Your task to perform on an android device: turn pop-ups on in chrome Image 0: 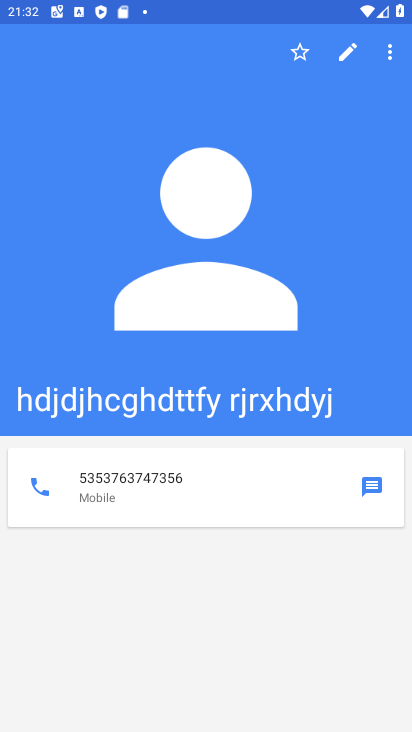
Step 0: press home button
Your task to perform on an android device: turn pop-ups on in chrome Image 1: 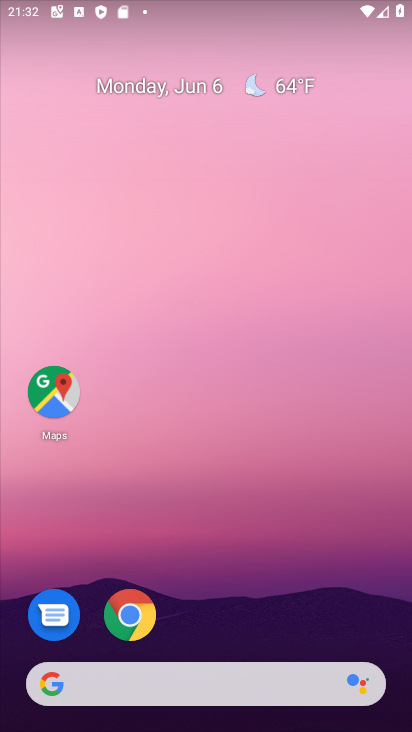
Step 1: click (113, 621)
Your task to perform on an android device: turn pop-ups on in chrome Image 2: 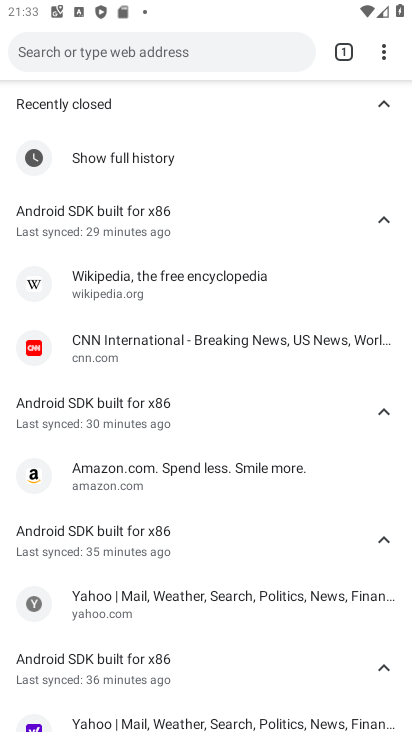
Step 2: click (385, 50)
Your task to perform on an android device: turn pop-ups on in chrome Image 3: 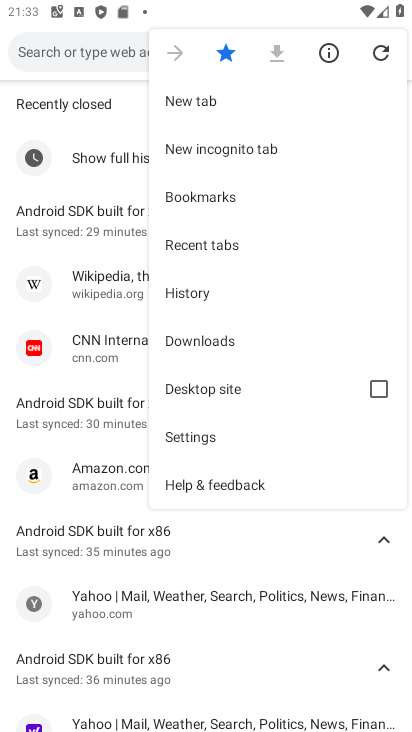
Step 3: click (197, 437)
Your task to perform on an android device: turn pop-ups on in chrome Image 4: 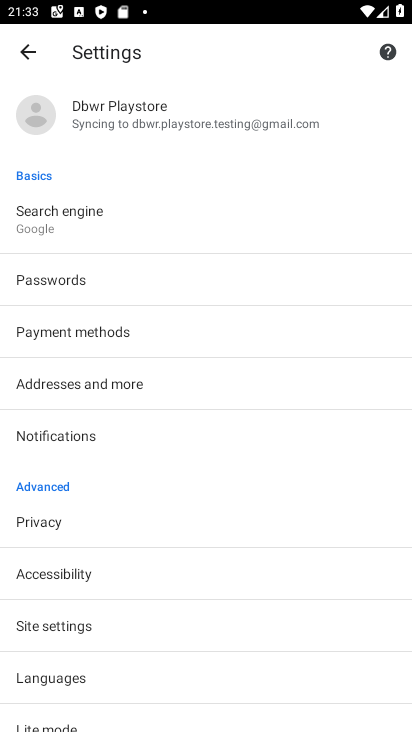
Step 4: drag from (138, 675) to (144, 289)
Your task to perform on an android device: turn pop-ups on in chrome Image 5: 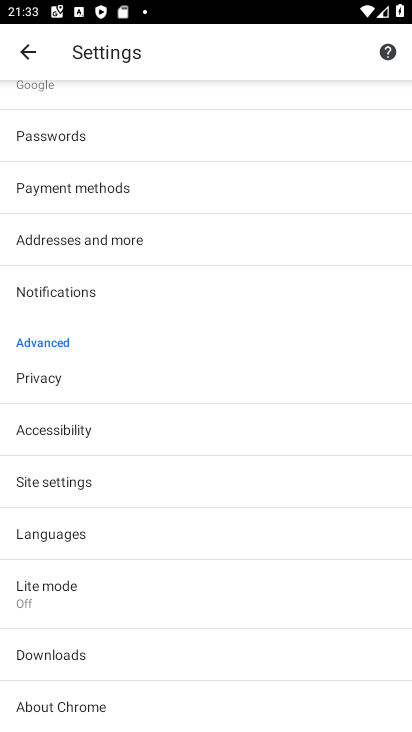
Step 5: drag from (141, 684) to (152, 400)
Your task to perform on an android device: turn pop-ups on in chrome Image 6: 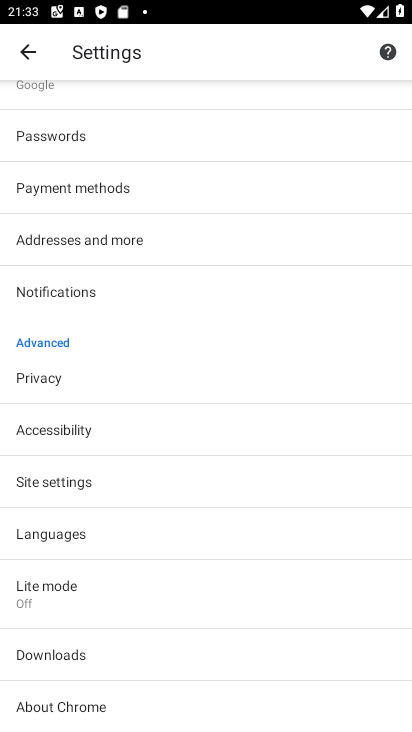
Step 6: click (47, 469)
Your task to perform on an android device: turn pop-ups on in chrome Image 7: 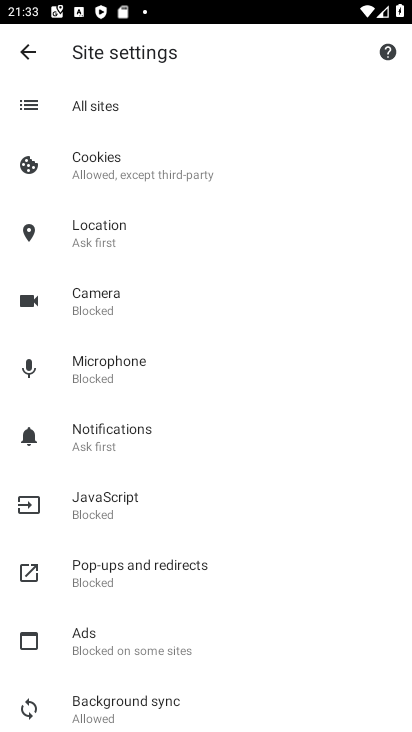
Step 7: click (95, 568)
Your task to perform on an android device: turn pop-ups on in chrome Image 8: 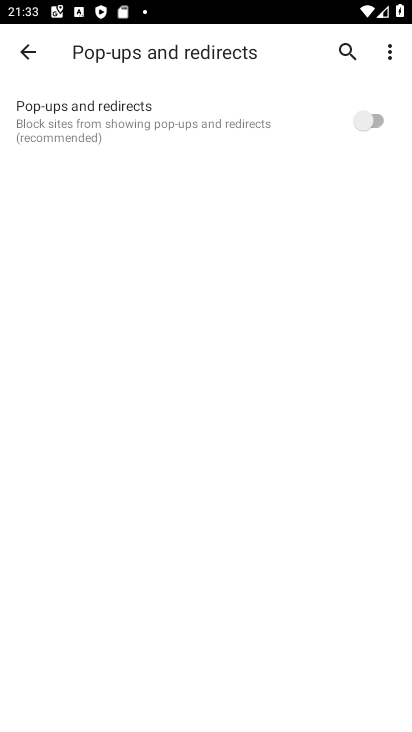
Step 8: click (374, 121)
Your task to perform on an android device: turn pop-ups on in chrome Image 9: 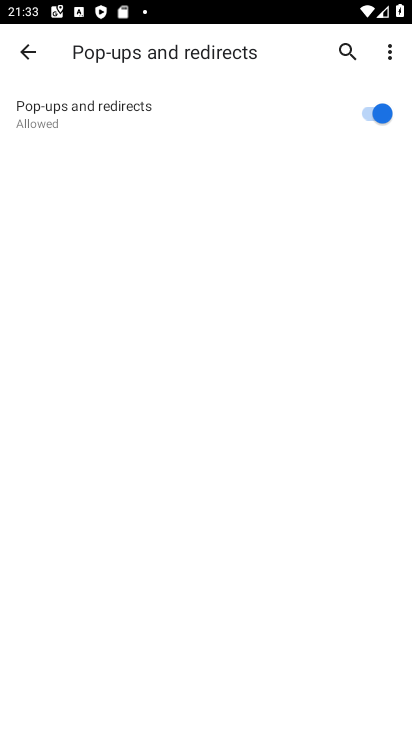
Step 9: task complete